Your task to perform on an android device: Show me popular videos on Youtube Image 0: 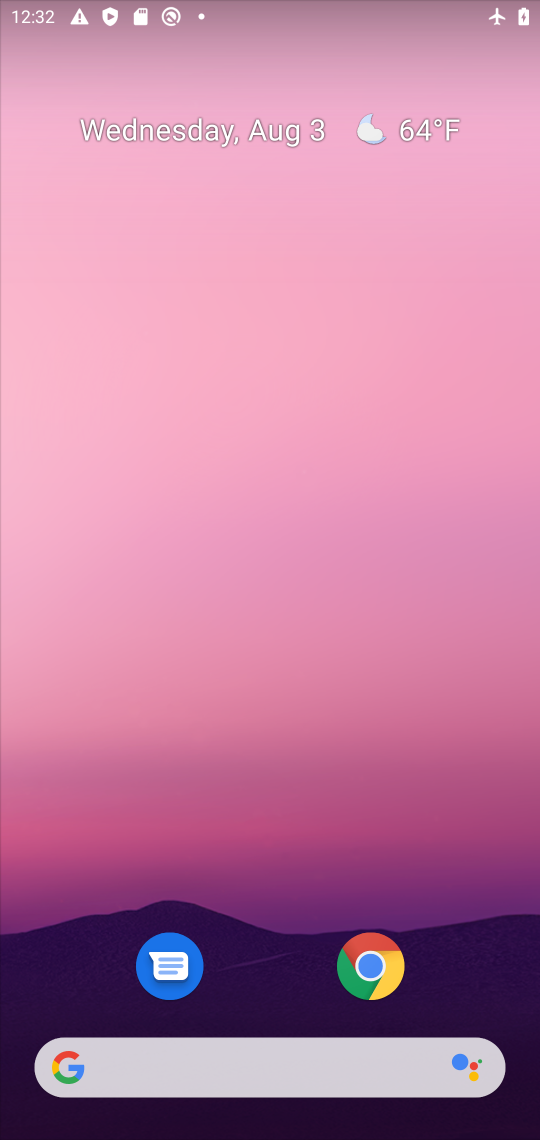
Step 0: drag from (293, 422) to (293, 261)
Your task to perform on an android device: Show me popular videos on Youtube Image 1: 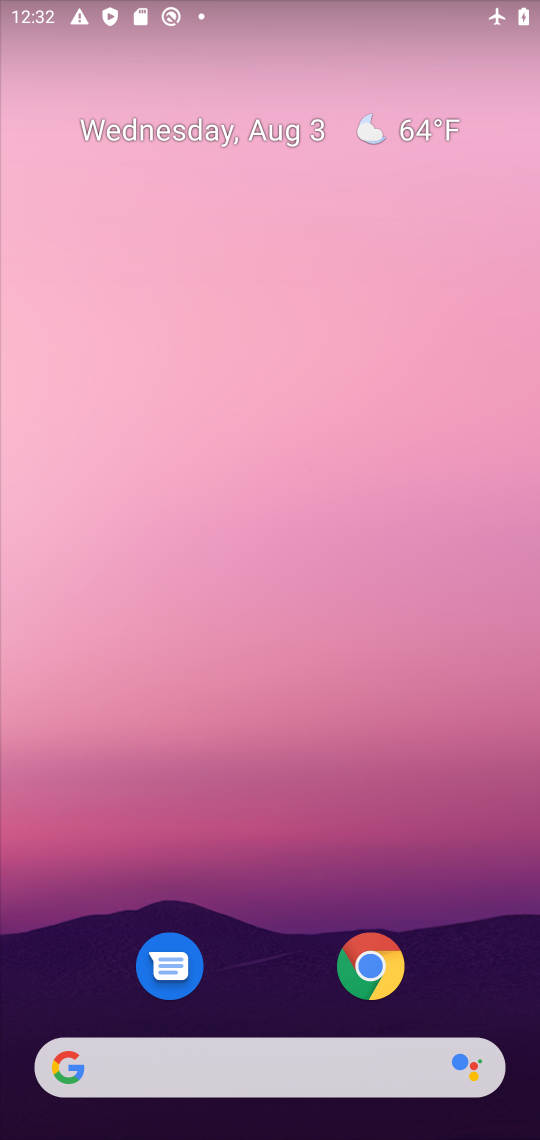
Step 1: click (176, 191)
Your task to perform on an android device: Show me popular videos on Youtube Image 2: 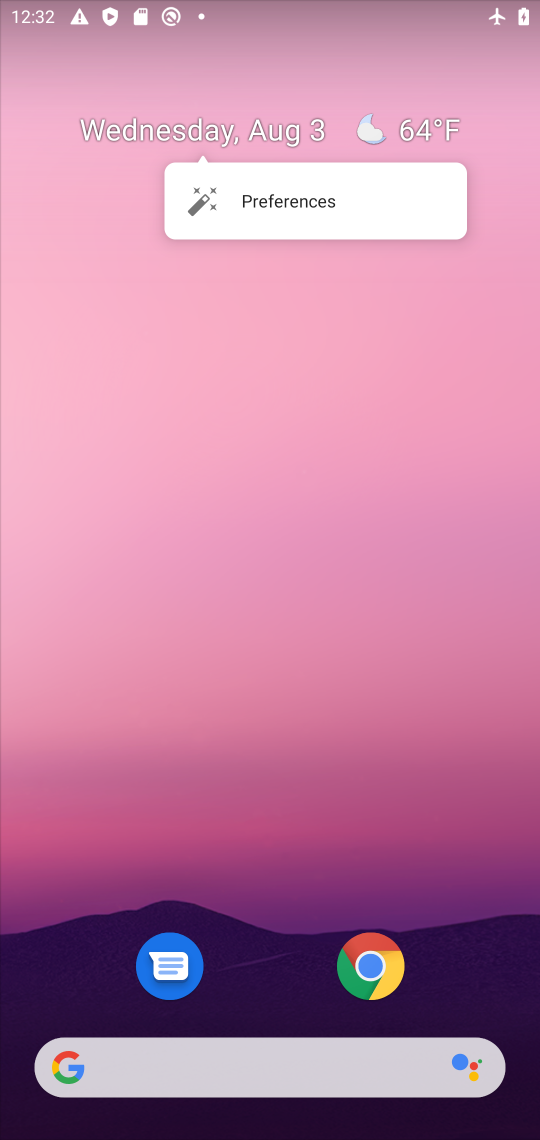
Step 2: drag from (286, 960) to (294, 282)
Your task to perform on an android device: Show me popular videos on Youtube Image 3: 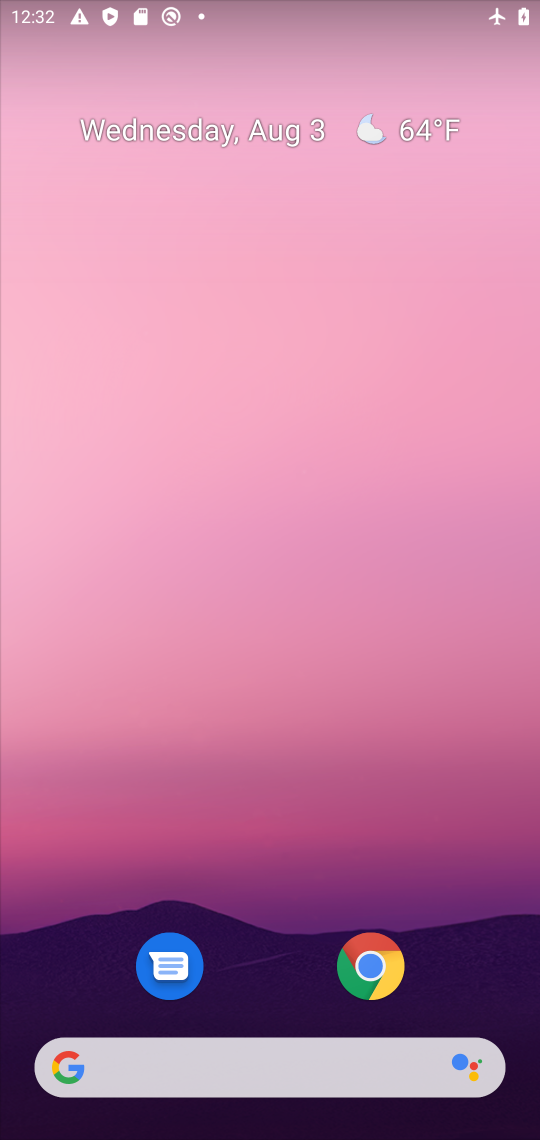
Step 3: drag from (238, 953) to (243, 135)
Your task to perform on an android device: Show me popular videos on Youtube Image 4: 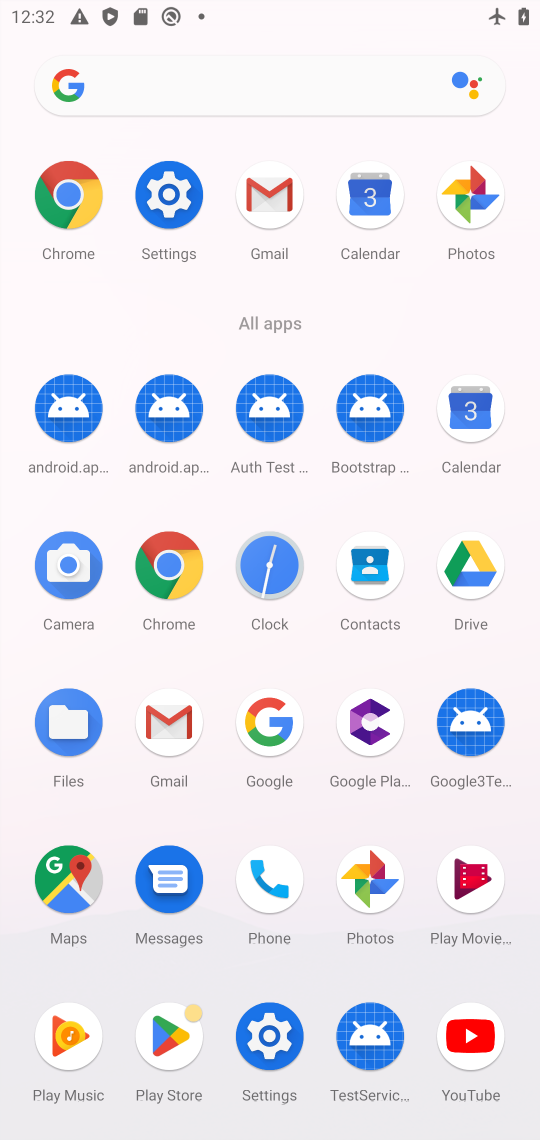
Step 4: click (440, 1053)
Your task to perform on an android device: Show me popular videos on Youtube Image 5: 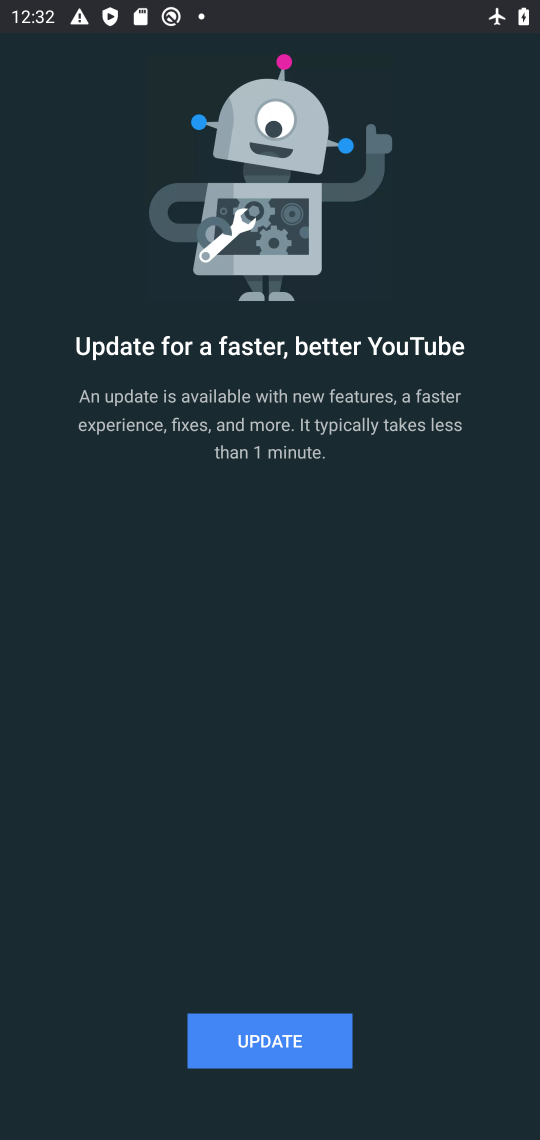
Step 5: click (327, 1034)
Your task to perform on an android device: Show me popular videos on Youtube Image 6: 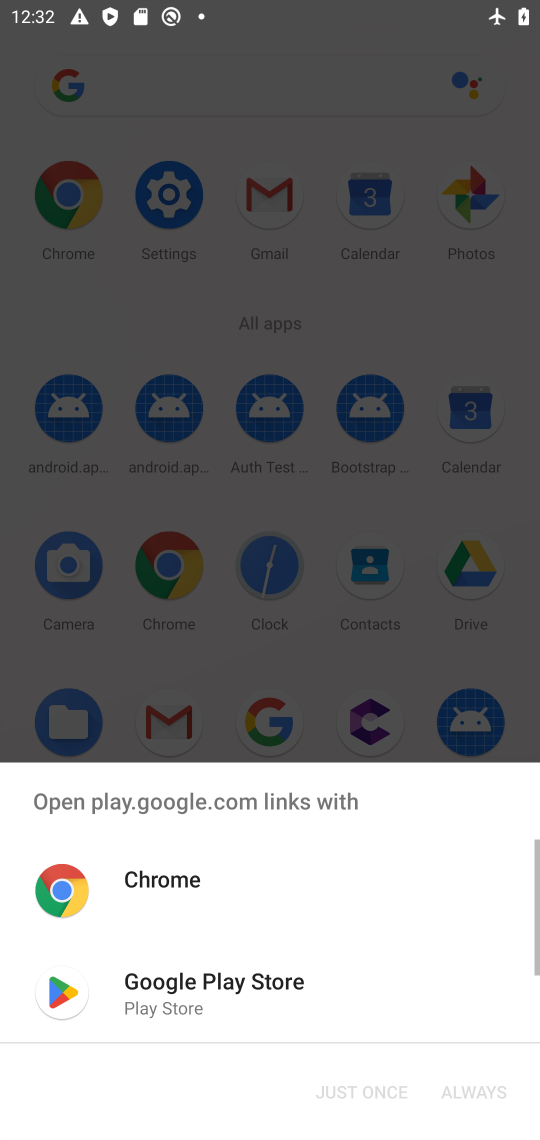
Step 6: click (241, 1003)
Your task to perform on an android device: Show me popular videos on Youtube Image 7: 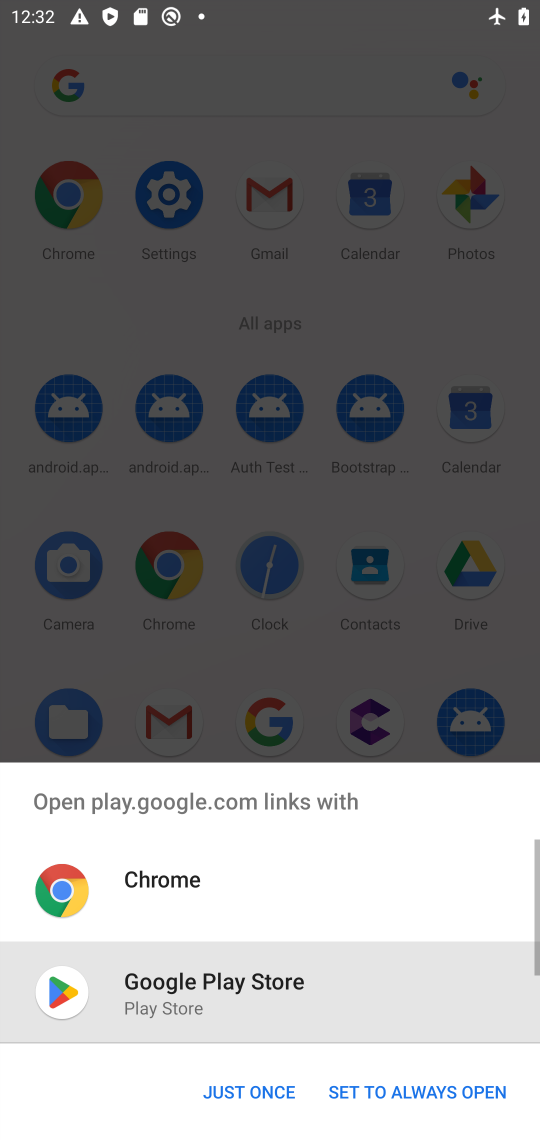
Step 7: click (274, 1104)
Your task to perform on an android device: Show me popular videos on Youtube Image 8: 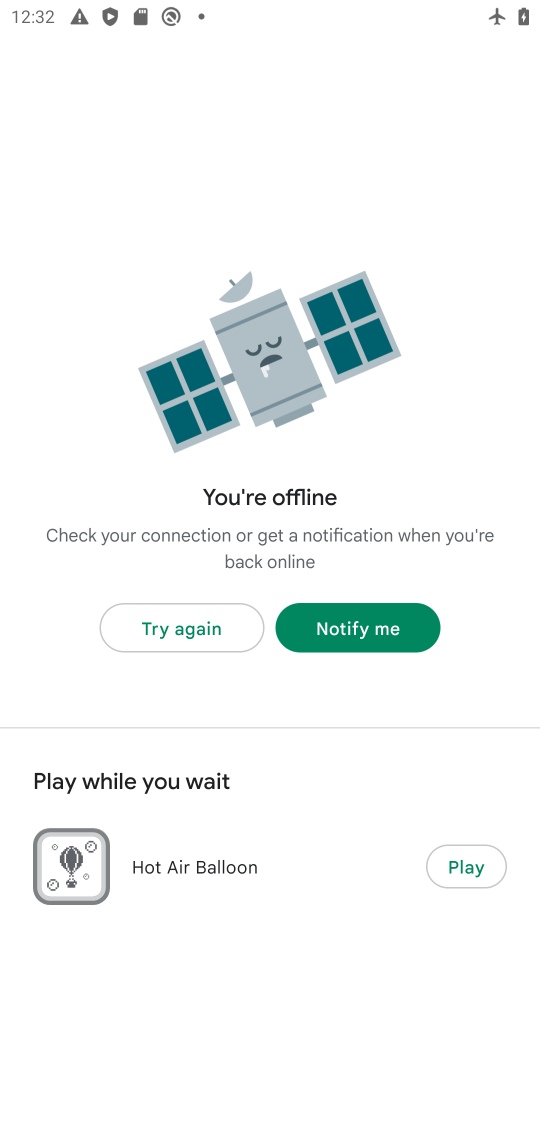
Step 8: task complete